Your task to perform on an android device: Go to ESPN.com Image 0: 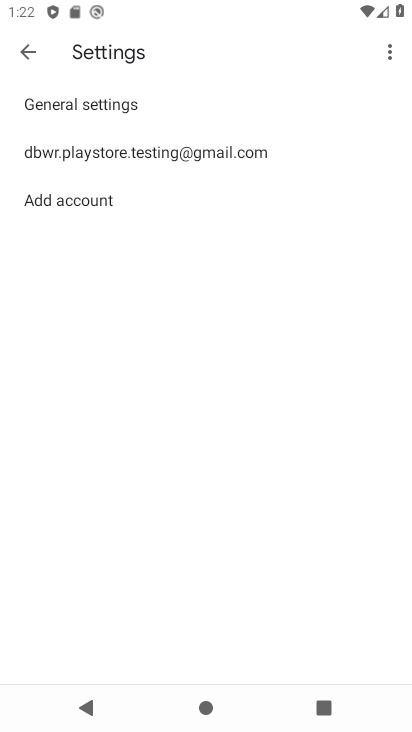
Step 0: press home button
Your task to perform on an android device: Go to ESPN.com Image 1: 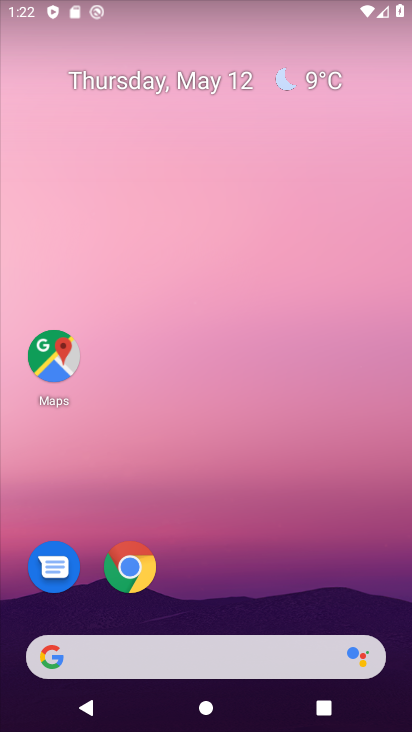
Step 1: click (144, 586)
Your task to perform on an android device: Go to ESPN.com Image 2: 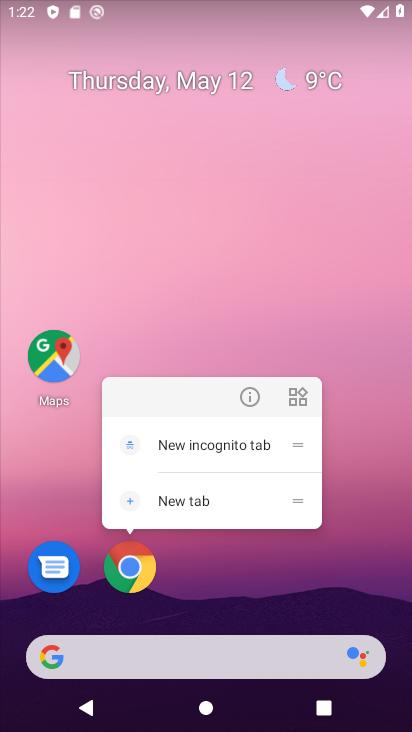
Step 2: click (150, 560)
Your task to perform on an android device: Go to ESPN.com Image 3: 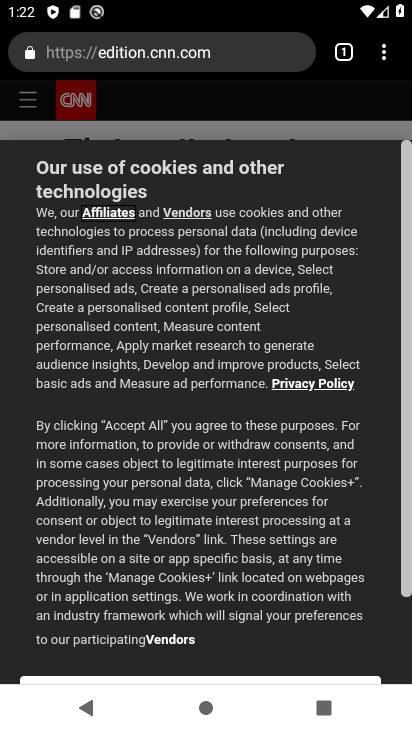
Step 3: click (146, 563)
Your task to perform on an android device: Go to ESPN.com Image 4: 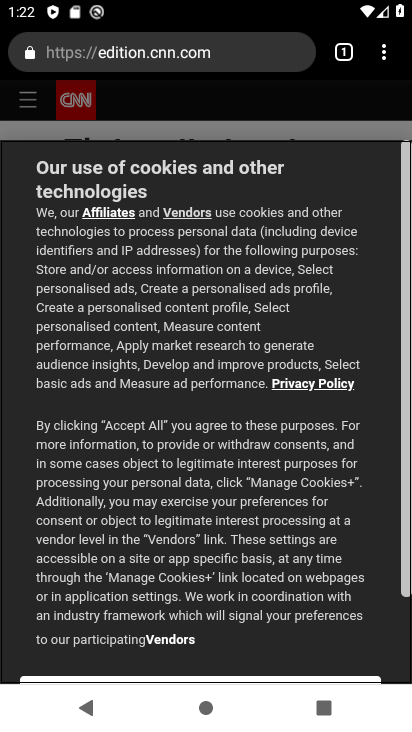
Step 4: press back button
Your task to perform on an android device: Go to ESPN.com Image 5: 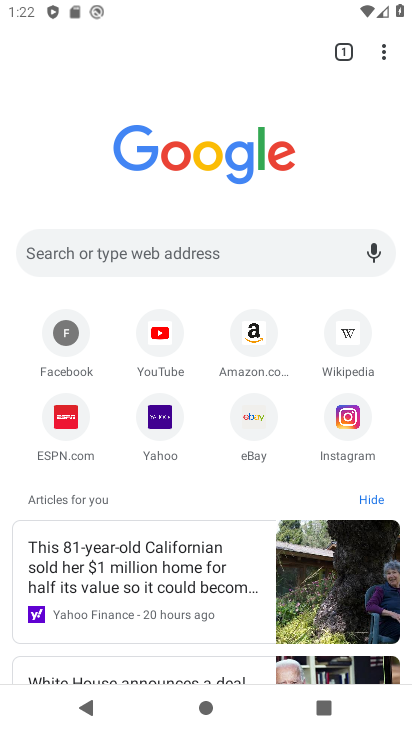
Step 5: click (72, 433)
Your task to perform on an android device: Go to ESPN.com Image 6: 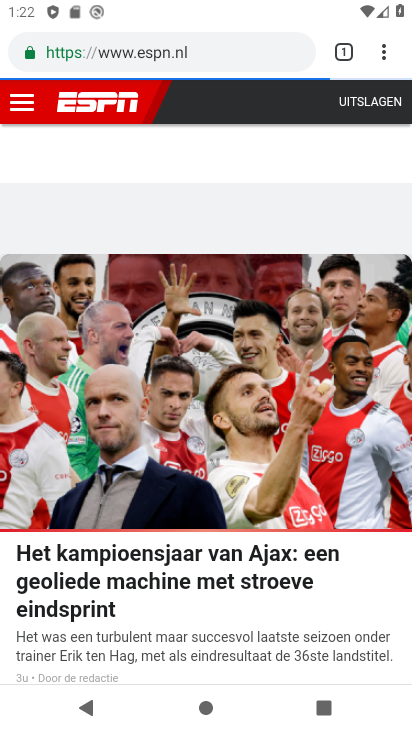
Step 6: task complete